Your task to perform on an android device: Show me productivity apps on the Play Store Image 0: 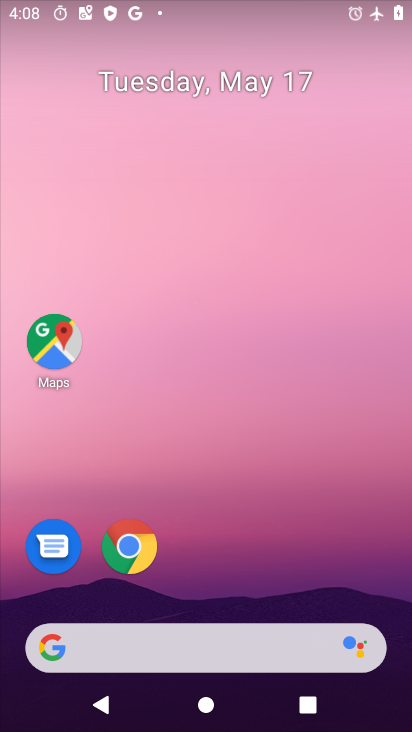
Step 0: drag from (383, 570) to (359, 416)
Your task to perform on an android device: Show me productivity apps on the Play Store Image 1: 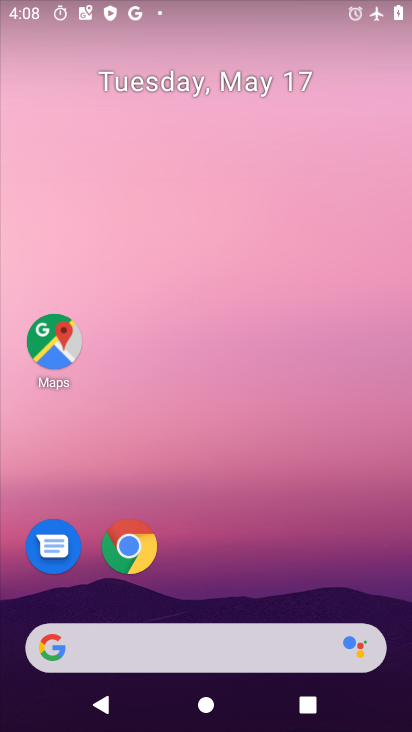
Step 1: drag from (387, 701) to (347, 283)
Your task to perform on an android device: Show me productivity apps on the Play Store Image 2: 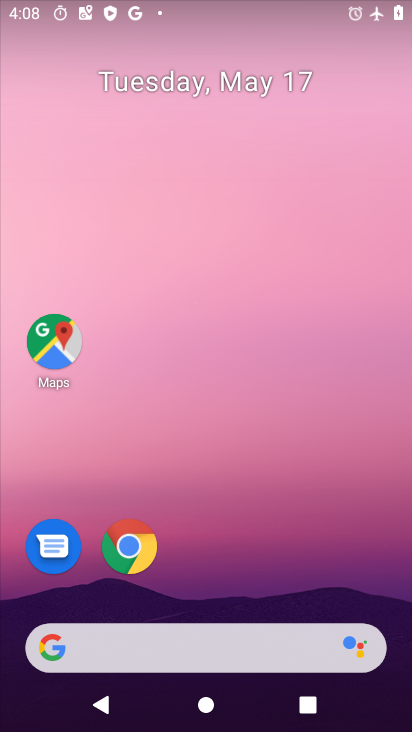
Step 2: drag from (385, 473) to (349, 231)
Your task to perform on an android device: Show me productivity apps on the Play Store Image 3: 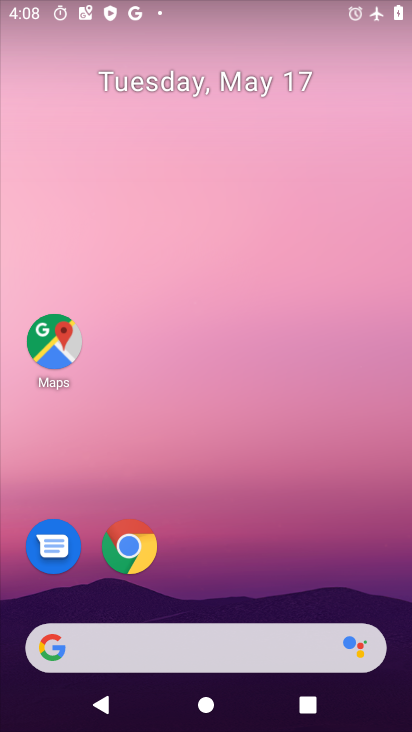
Step 3: drag from (411, 661) to (411, 180)
Your task to perform on an android device: Show me productivity apps on the Play Store Image 4: 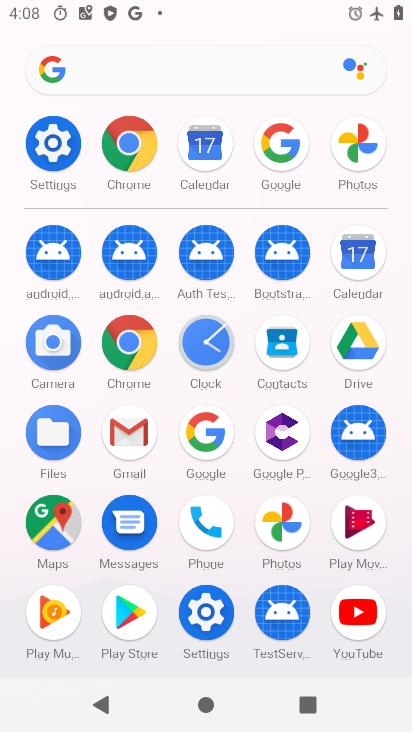
Step 4: drag from (405, 436) to (403, 208)
Your task to perform on an android device: Show me productivity apps on the Play Store Image 5: 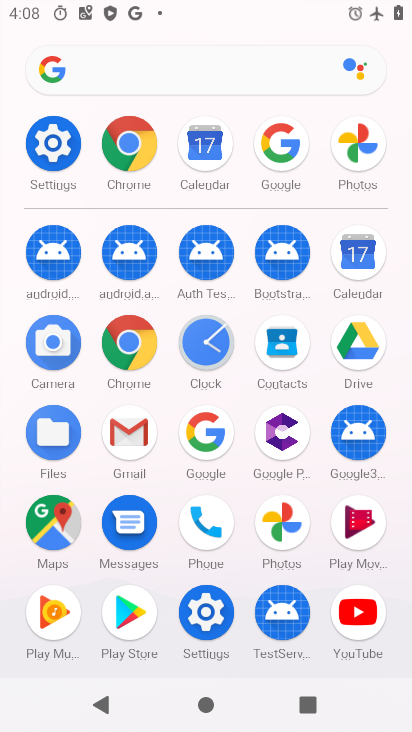
Step 5: click (115, 609)
Your task to perform on an android device: Show me productivity apps on the Play Store Image 6: 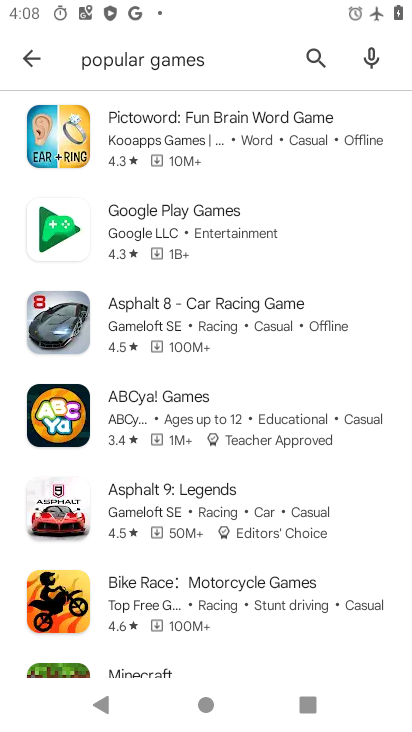
Step 6: click (314, 42)
Your task to perform on an android device: Show me productivity apps on the Play Store Image 7: 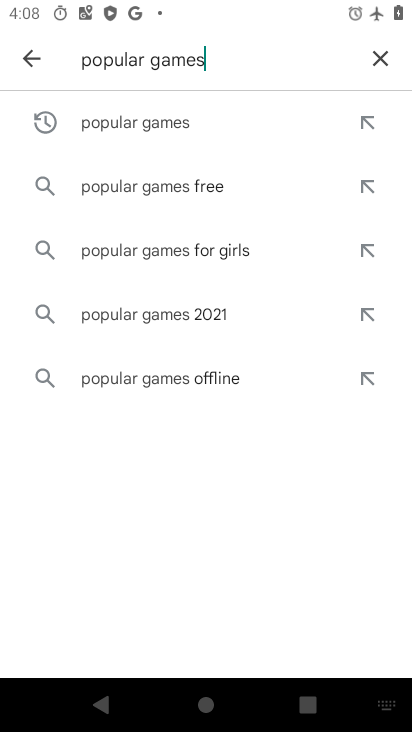
Step 7: click (378, 58)
Your task to perform on an android device: Show me productivity apps on the Play Store Image 8: 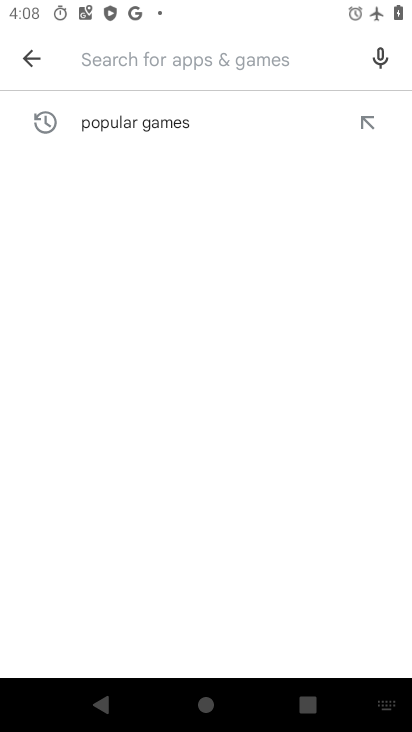
Step 8: type "productivity apps"
Your task to perform on an android device: Show me productivity apps on the Play Store Image 9: 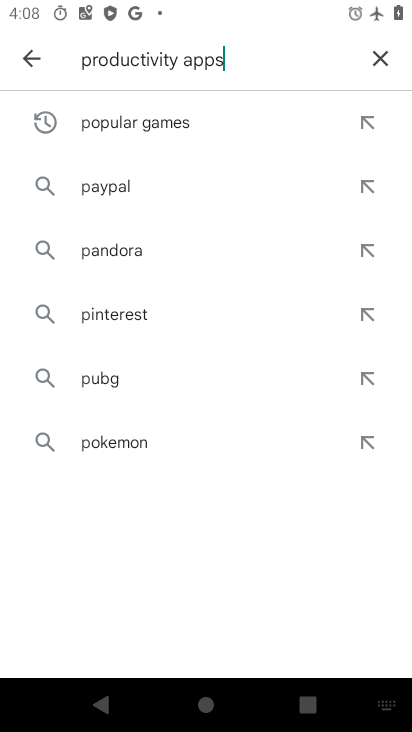
Step 9: press back button
Your task to perform on an android device: Show me productivity apps on the Play Store Image 10: 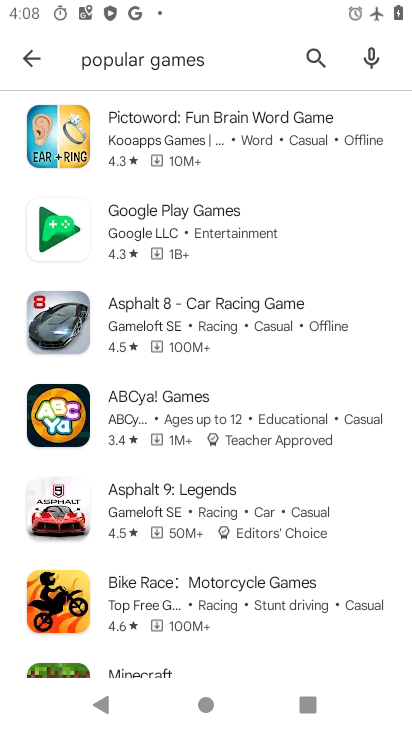
Step 10: click (219, 58)
Your task to perform on an android device: Show me productivity apps on the Play Store Image 11: 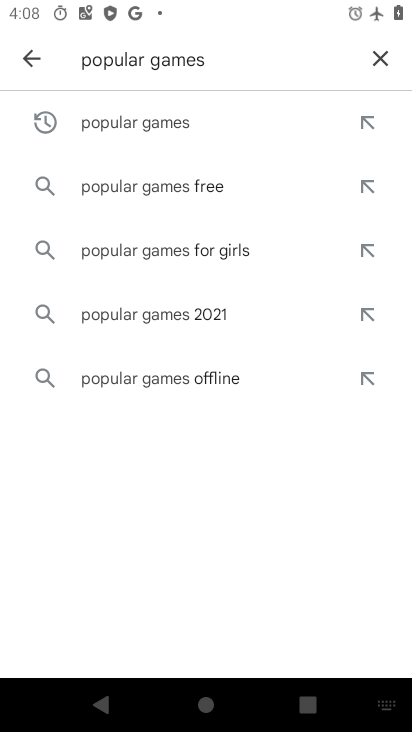
Step 11: click (376, 53)
Your task to perform on an android device: Show me productivity apps on the Play Store Image 12: 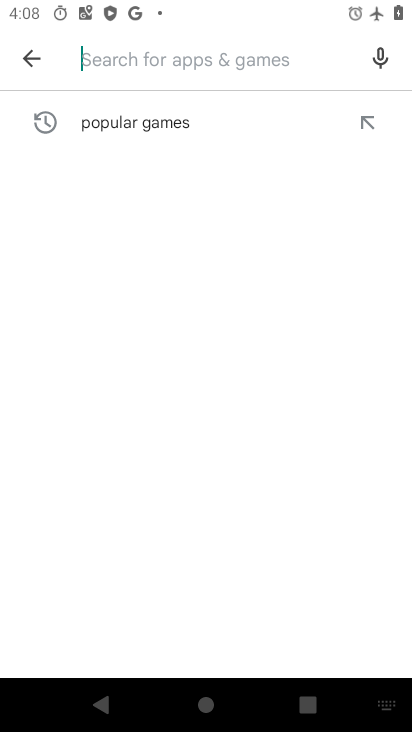
Step 12: click (119, 62)
Your task to perform on an android device: Show me productivity apps on the Play Store Image 13: 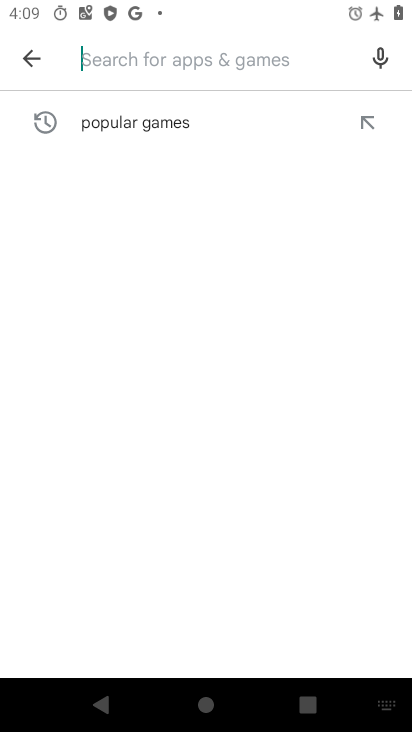
Step 13: type "productivity apps"
Your task to perform on an android device: Show me productivity apps on the Play Store Image 14: 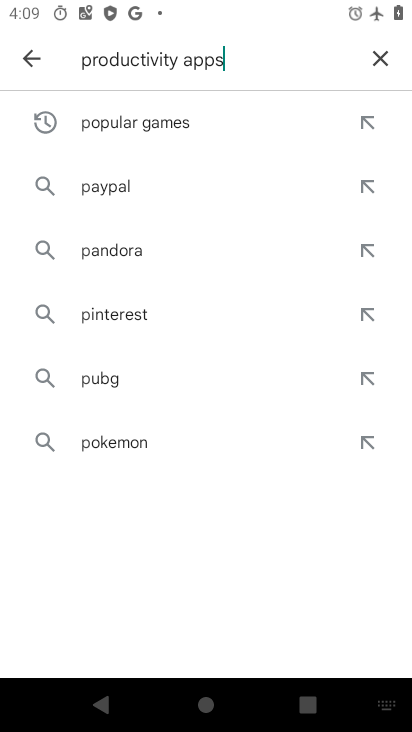
Step 14: task complete